Your task to perform on an android device: change text size in settings app Image 0: 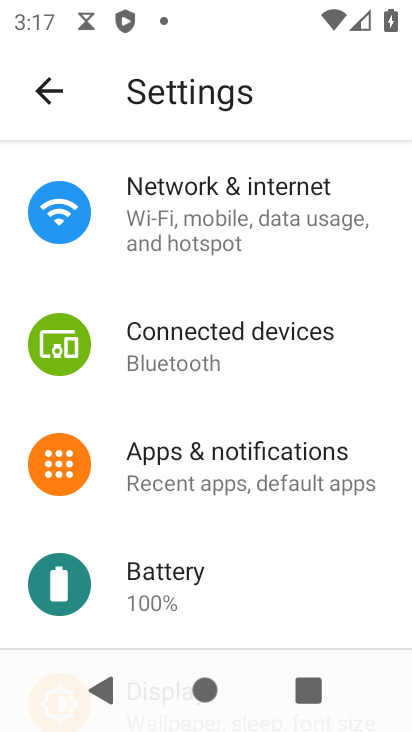
Step 0: drag from (183, 614) to (286, 231)
Your task to perform on an android device: change text size in settings app Image 1: 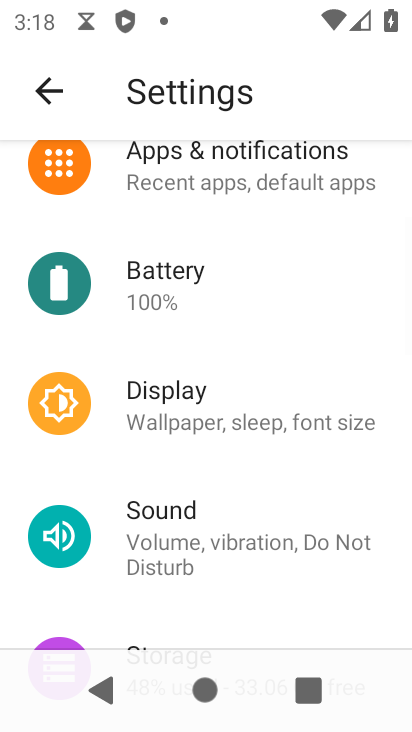
Step 1: click (217, 423)
Your task to perform on an android device: change text size in settings app Image 2: 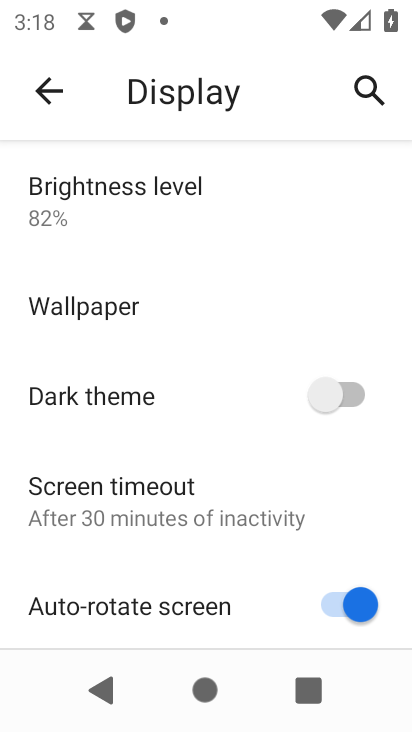
Step 2: drag from (142, 589) to (241, 84)
Your task to perform on an android device: change text size in settings app Image 3: 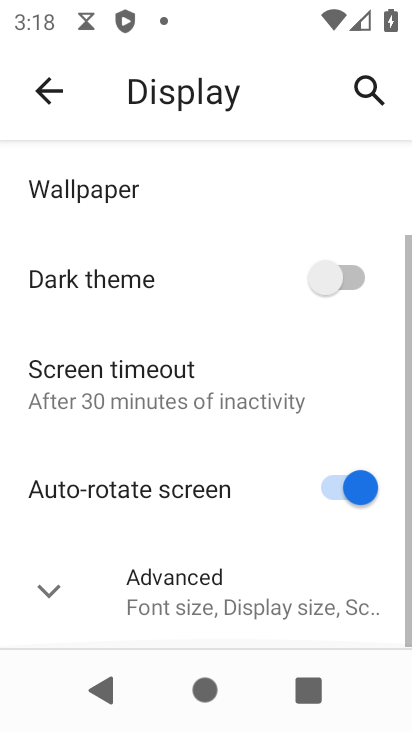
Step 3: click (253, 617)
Your task to perform on an android device: change text size in settings app Image 4: 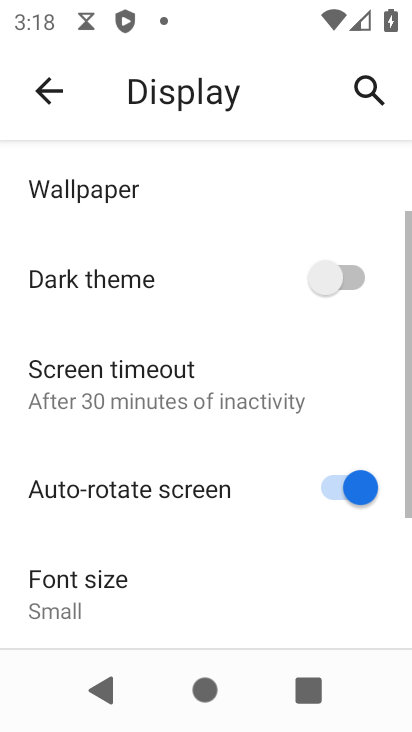
Step 4: drag from (224, 605) to (257, 172)
Your task to perform on an android device: change text size in settings app Image 5: 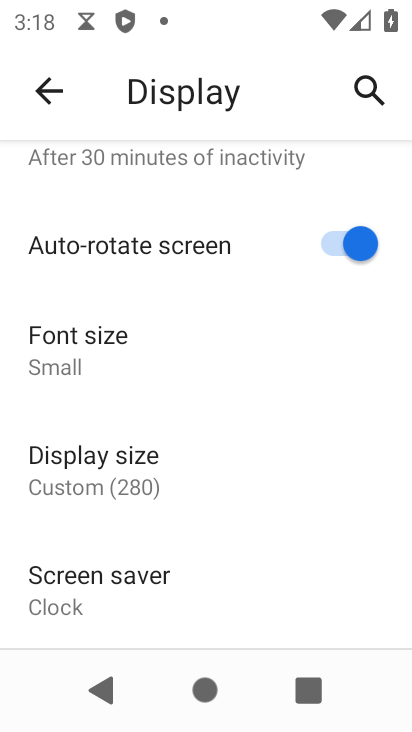
Step 5: drag from (219, 368) to (228, 612)
Your task to perform on an android device: change text size in settings app Image 6: 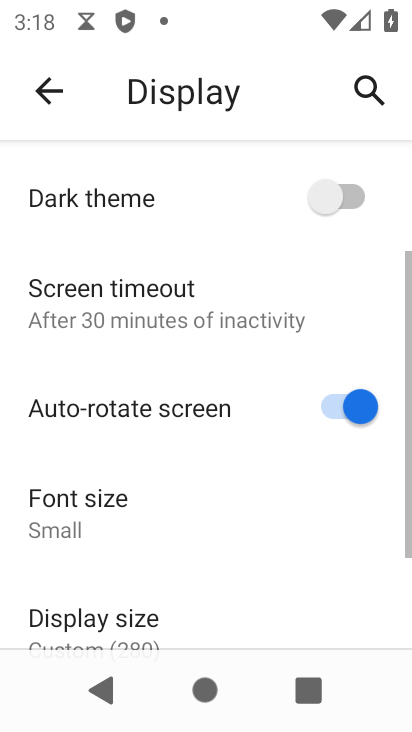
Step 6: click (153, 528)
Your task to perform on an android device: change text size in settings app Image 7: 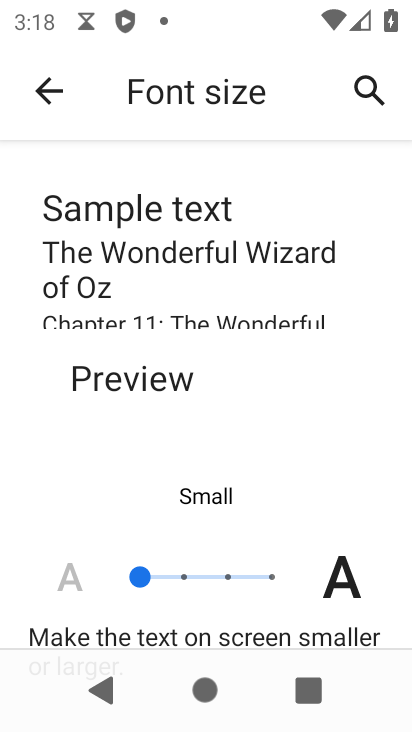
Step 7: click (182, 578)
Your task to perform on an android device: change text size in settings app Image 8: 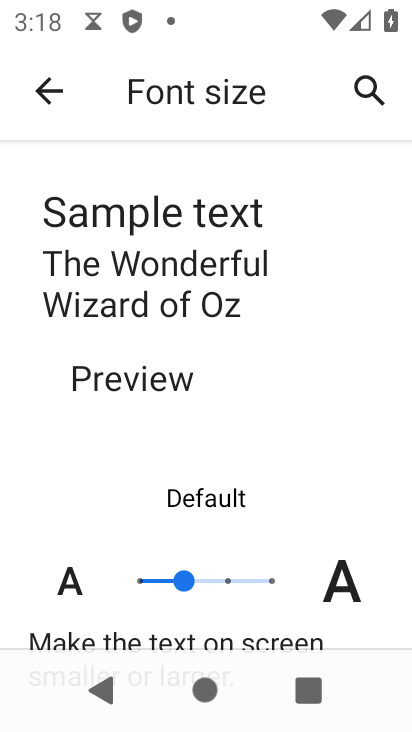
Step 8: task complete